Your task to perform on an android device: turn on the 12-hour format for clock Image 0: 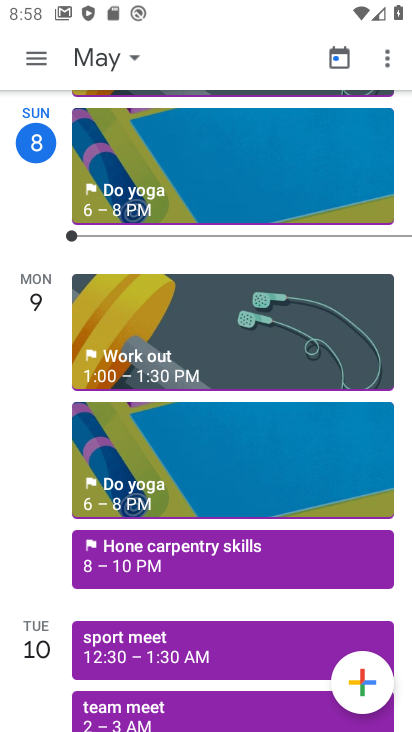
Step 0: press home button
Your task to perform on an android device: turn on the 12-hour format for clock Image 1: 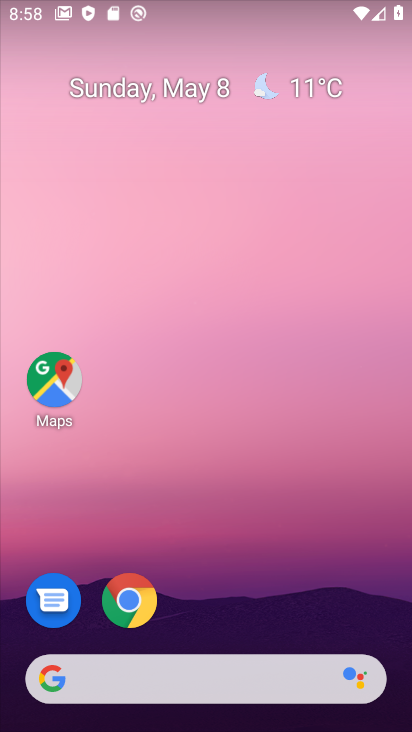
Step 1: drag from (230, 625) to (289, 238)
Your task to perform on an android device: turn on the 12-hour format for clock Image 2: 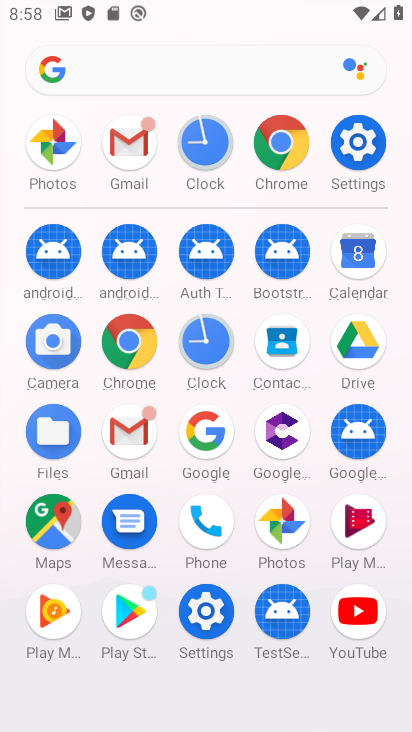
Step 2: click (194, 345)
Your task to perform on an android device: turn on the 12-hour format for clock Image 3: 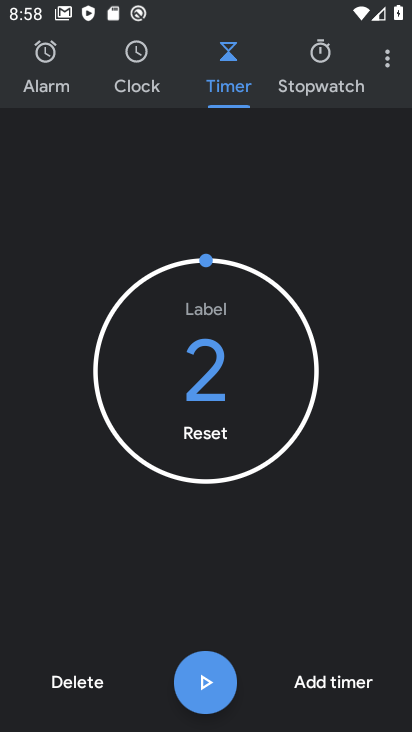
Step 3: click (384, 60)
Your task to perform on an android device: turn on the 12-hour format for clock Image 4: 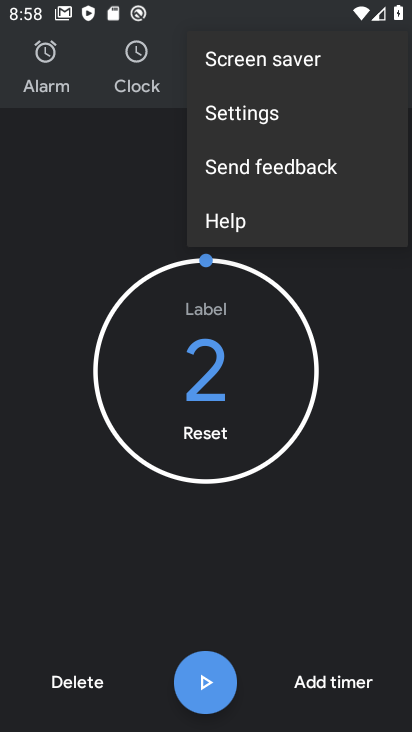
Step 4: click (303, 124)
Your task to perform on an android device: turn on the 12-hour format for clock Image 5: 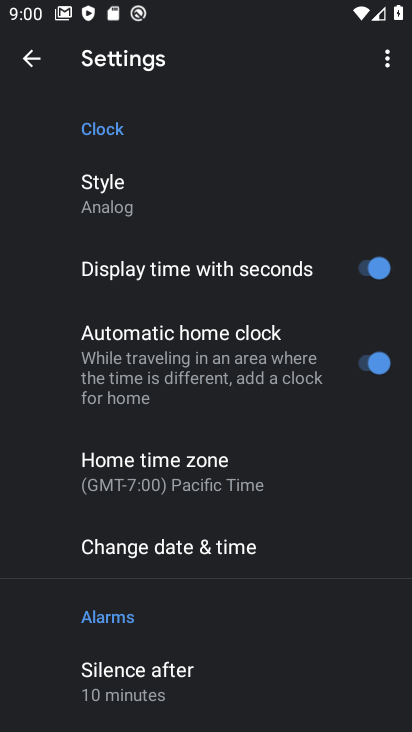
Step 5: task complete